Your task to perform on an android device: check android version Image 0: 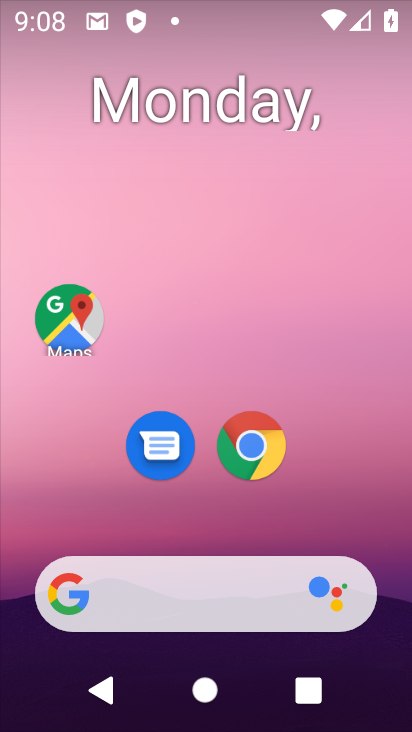
Step 0: drag from (248, 506) to (330, 174)
Your task to perform on an android device: check android version Image 1: 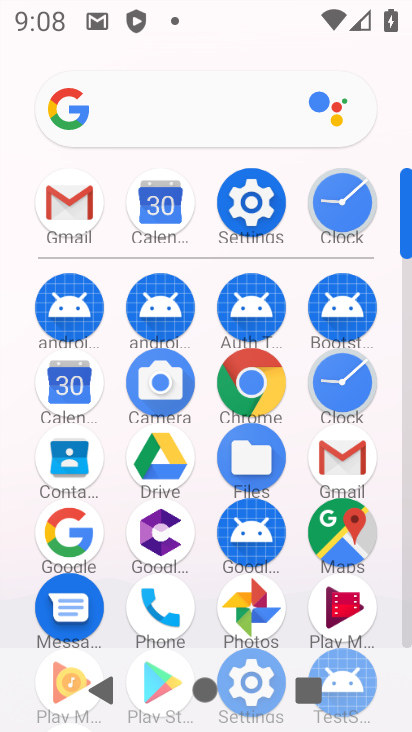
Step 1: click (261, 196)
Your task to perform on an android device: check android version Image 2: 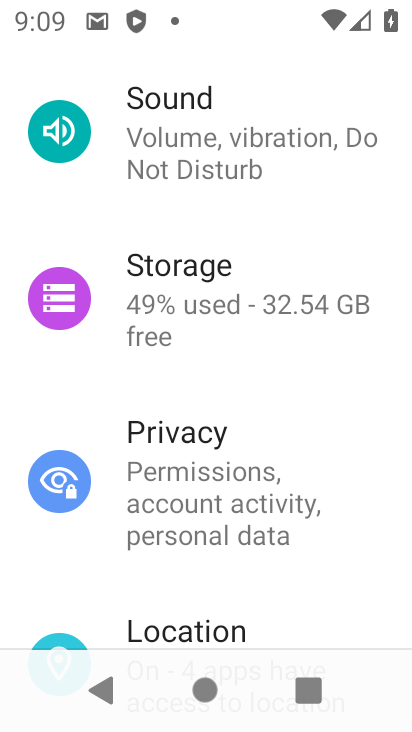
Step 2: drag from (202, 573) to (204, 81)
Your task to perform on an android device: check android version Image 3: 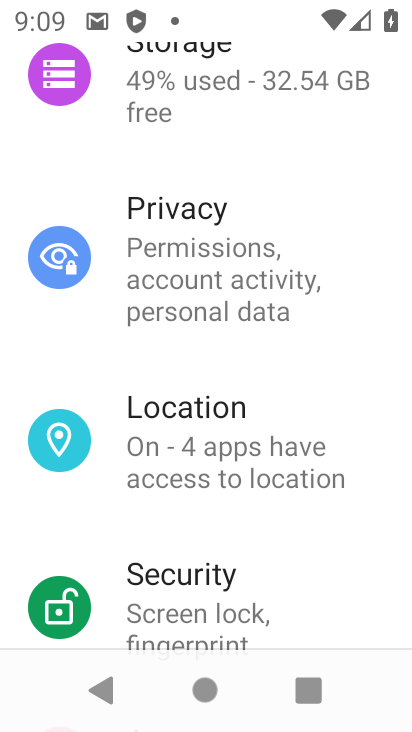
Step 3: drag from (190, 622) to (222, 51)
Your task to perform on an android device: check android version Image 4: 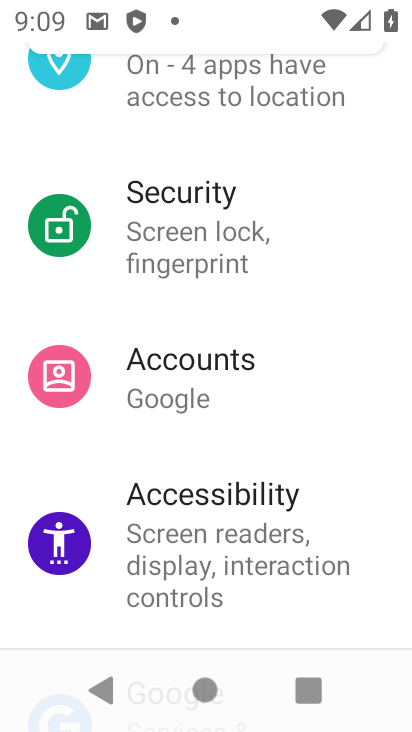
Step 4: drag from (253, 605) to (341, 8)
Your task to perform on an android device: check android version Image 5: 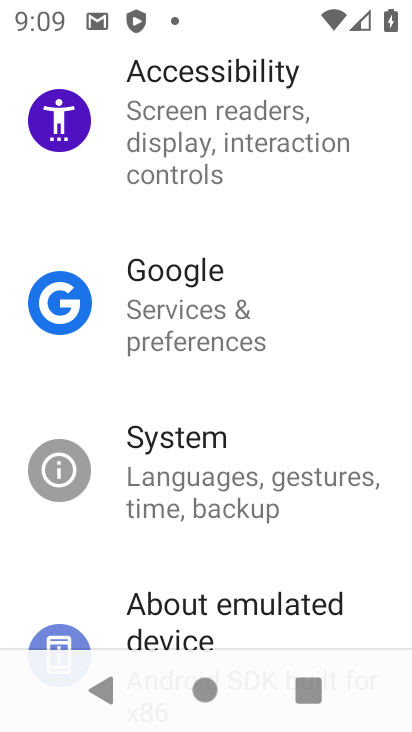
Step 5: drag from (196, 528) to (217, 70)
Your task to perform on an android device: check android version Image 6: 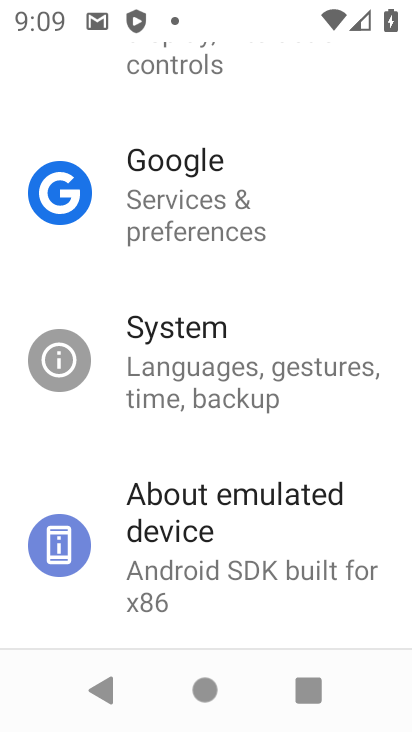
Step 6: click (218, 564)
Your task to perform on an android device: check android version Image 7: 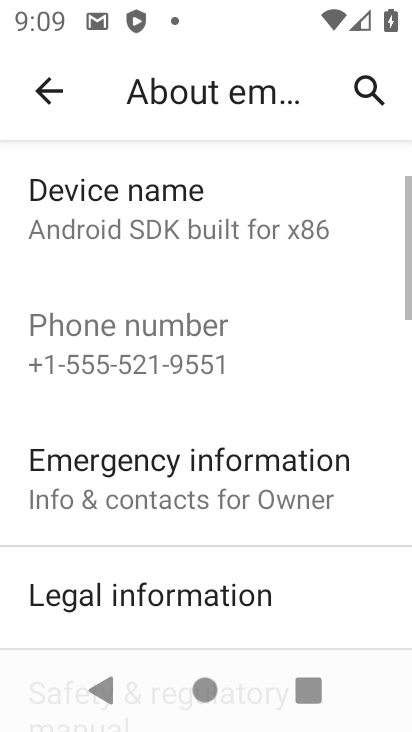
Step 7: task complete